Your task to perform on an android device: choose inbox layout in the gmail app Image 0: 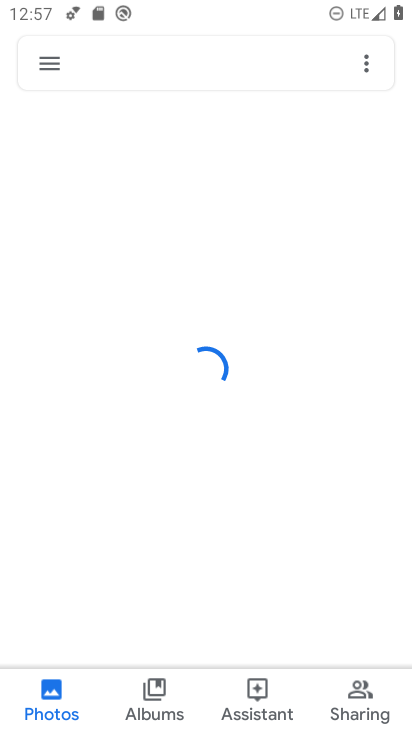
Step 0: press home button
Your task to perform on an android device: choose inbox layout in the gmail app Image 1: 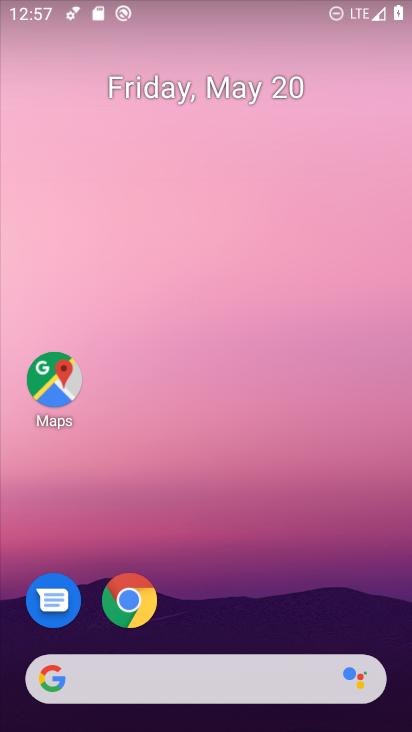
Step 1: drag from (210, 661) to (204, 248)
Your task to perform on an android device: choose inbox layout in the gmail app Image 2: 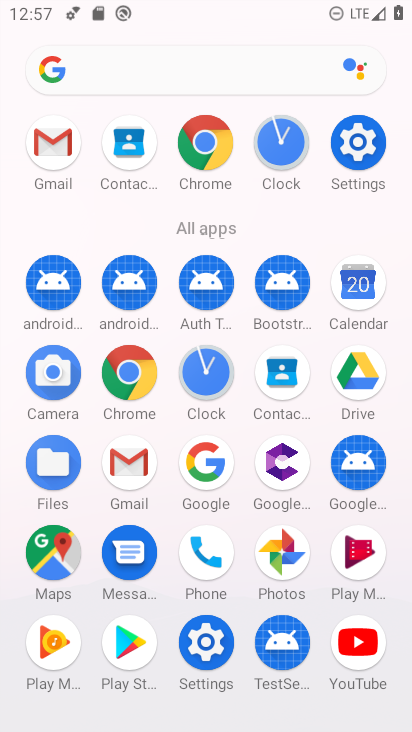
Step 2: click (138, 467)
Your task to perform on an android device: choose inbox layout in the gmail app Image 3: 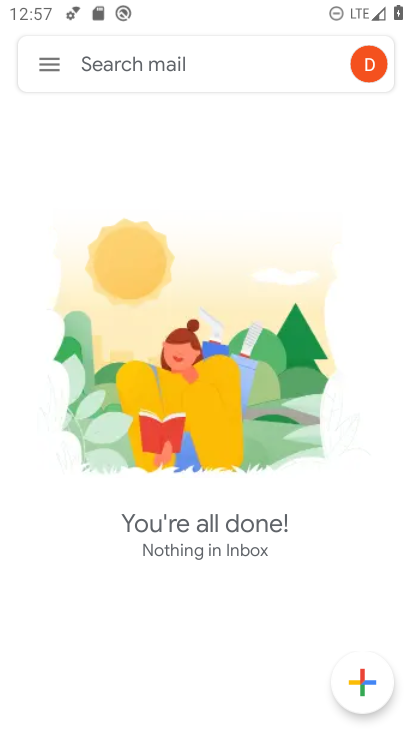
Step 3: click (52, 55)
Your task to perform on an android device: choose inbox layout in the gmail app Image 4: 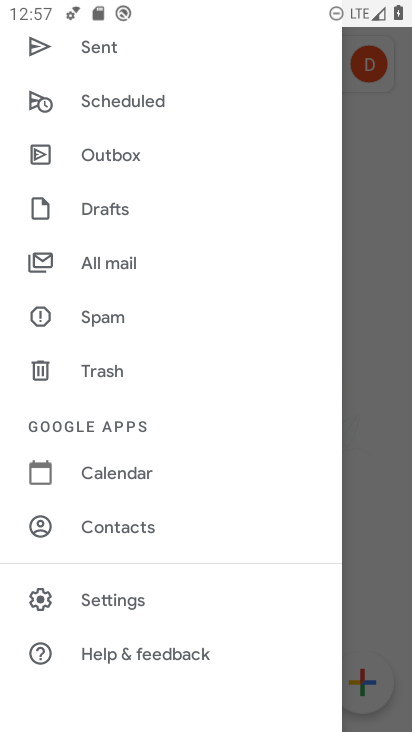
Step 4: click (97, 588)
Your task to perform on an android device: choose inbox layout in the gmail app Image 5: 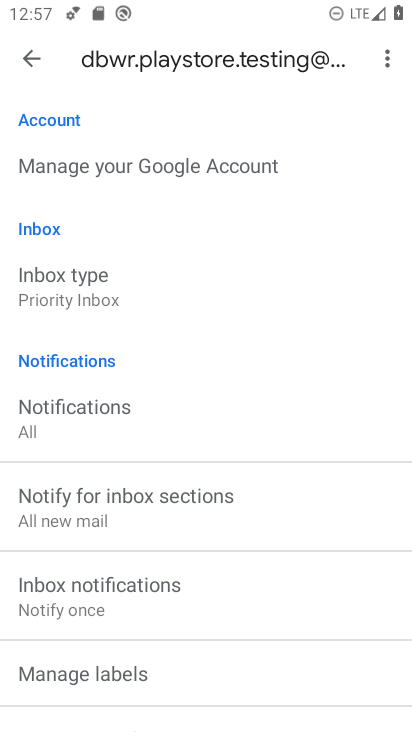
Step 5: click (107, 290)
Your task to perform on an android device: choose inbox layout in the gmail app Image 6: 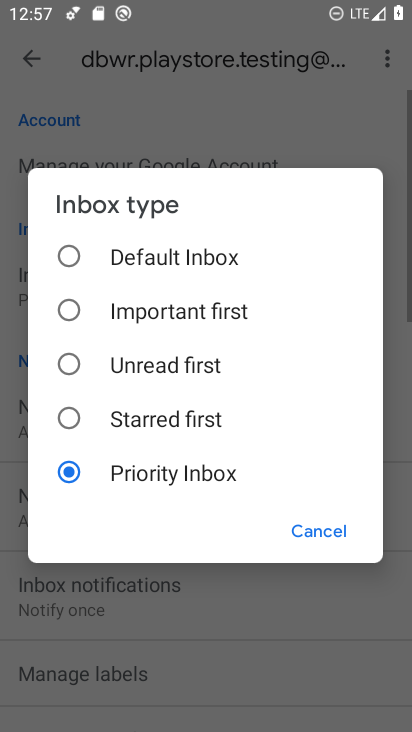
Step 6: click (111, 424)
Your task to perform on an android device: choose inbox layout in the gmail app Image 7: 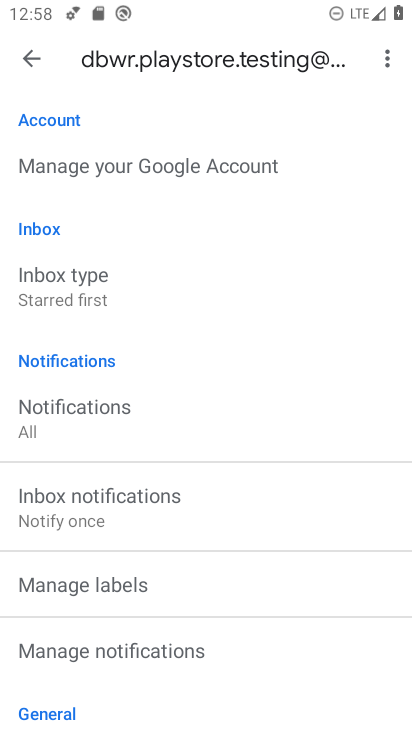
Step 7: task complete